Your task to perform on an android device: check battery use Image 0: 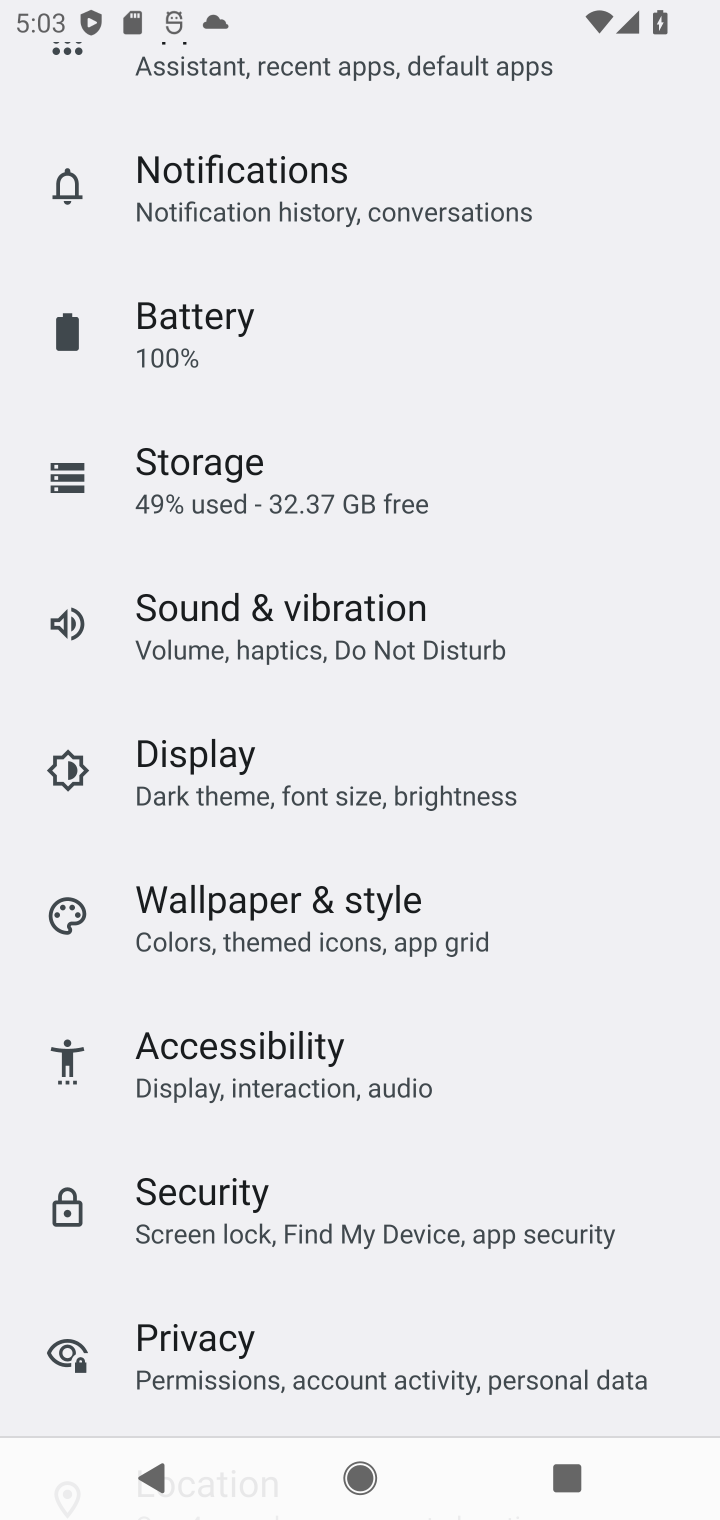
Step 0: click (168, 328)
Your task to perform on an android device: check battery use Image 1: 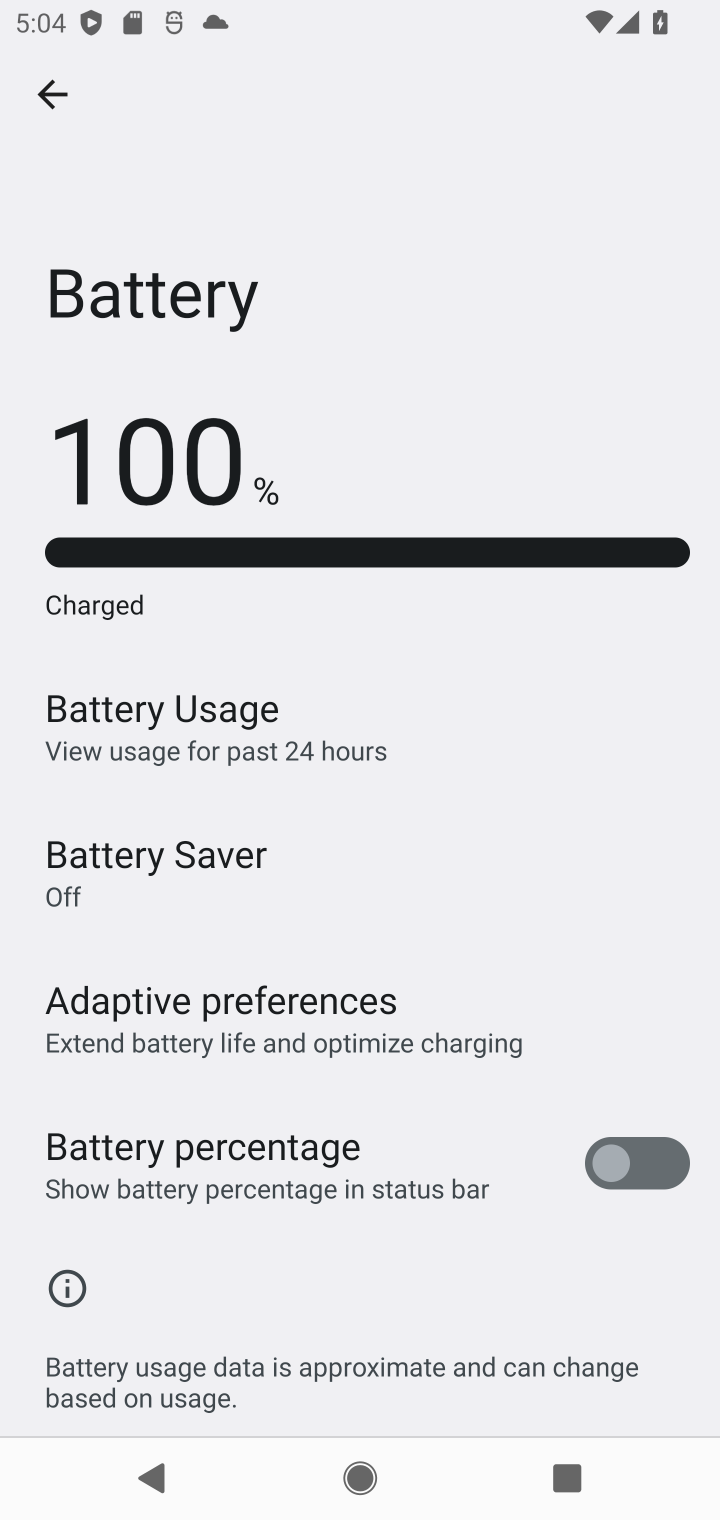
Step 1: click (162, 736)
Your task to perform on an android device: check battery use Image 2: 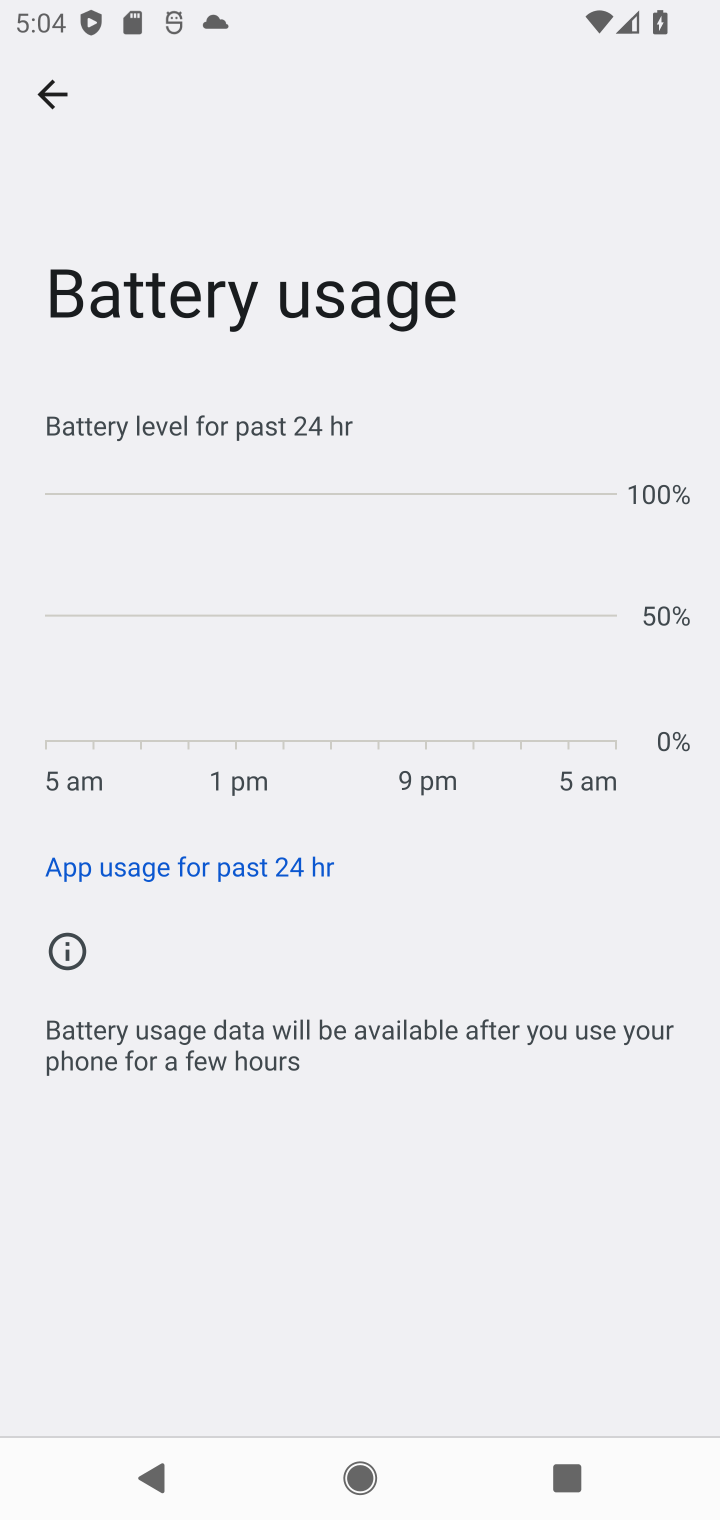
Step 2: task complete